Your task to perform on an android device: turn off smart reply in the gmail app Image 0: 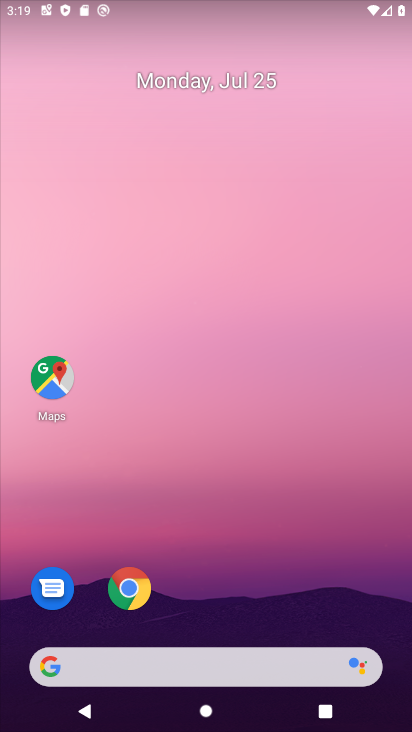
Step 0: drag from (224, 563) to (187, 179)
Your task to perform on an android device: turn off smart reply in the gmail app Image 1: 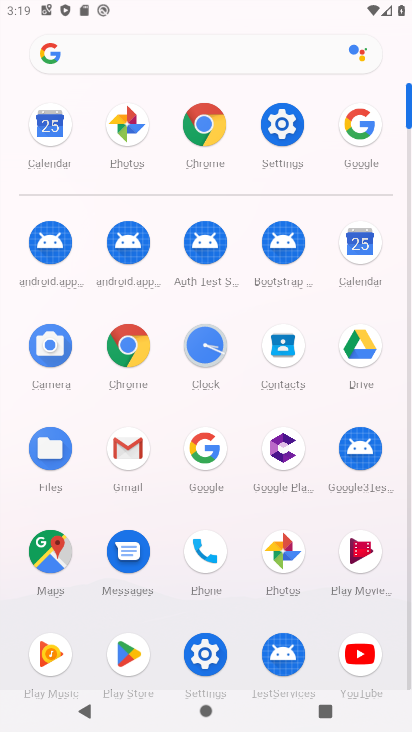
Step 1: click (135, 470)
Your task to perform on an android device: turn off smart reply in the gmail app Image 2: 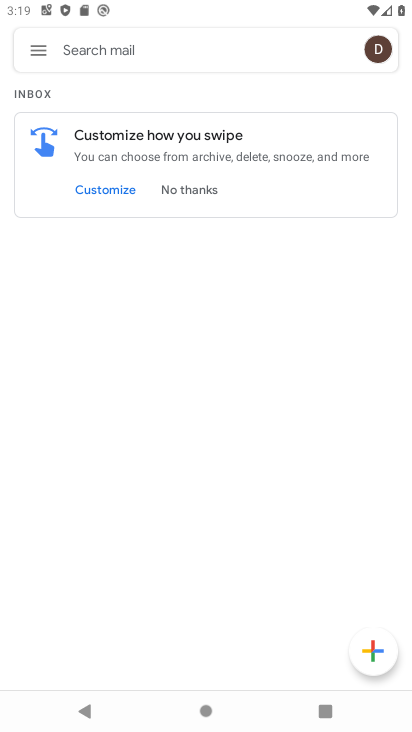
Step 2: click (34, 61)
Your task to perform on an android device: turn off smart reply in the gmail app Image 3: 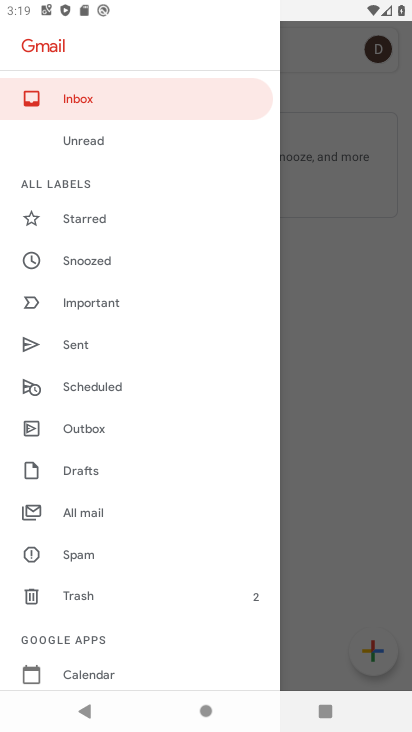
Step 3: drag from (102, 625) to (96, 294)
Your task to perform on an android device: turn off smart reply in the gmail app Image 4: 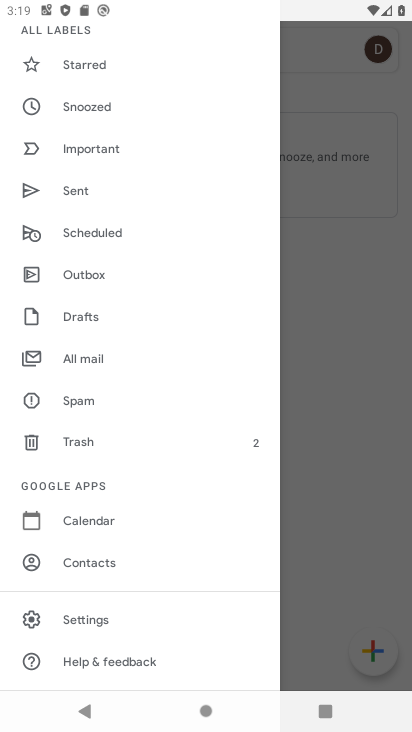
Step 4: click (77, 621)
Your task to perform on an android device: turn off smart reply in the gmail app Image 5: 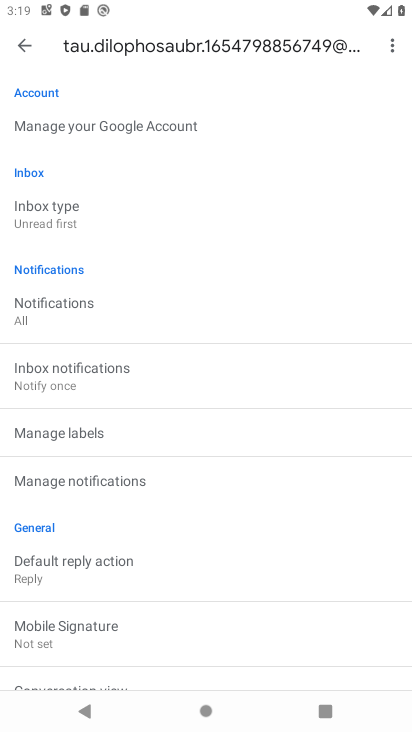
Step 5: drag from (118, 585) to (166, 304)
Your task to perform on an android device: turn off smart reply in the gmail app Image 6: 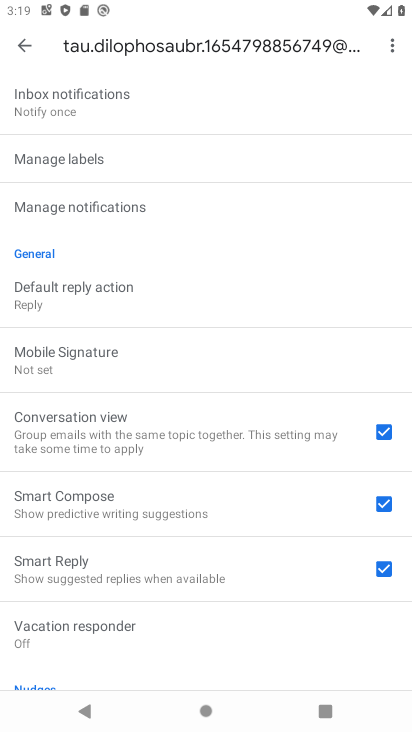
Step 6: click (382, 554)
Your task to perform on an android device: turn off smart reply in the gmail app Image 7: 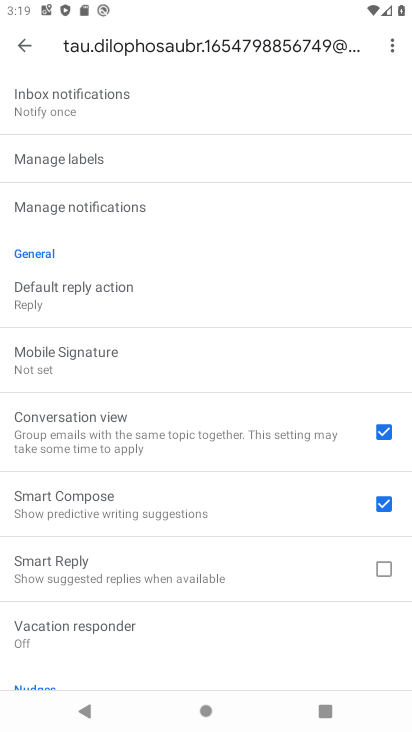
Step 7: task complete